Your task to perform on an android device: Open Chrome and go to settings Image 0: 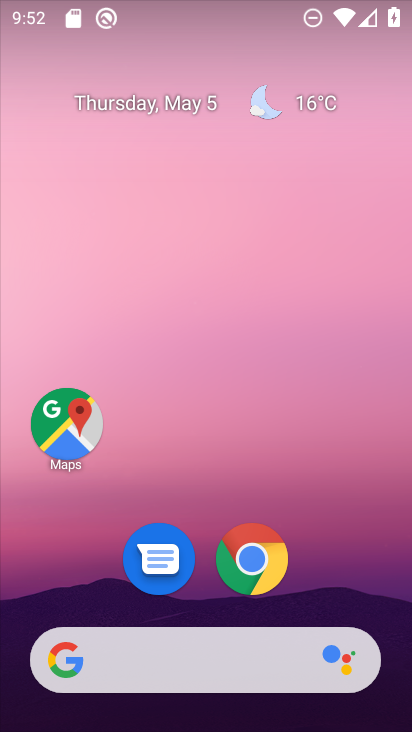
Step 0: click (254, 565)
Your task to perform on an android device: Open Chrome and go to settings Image 1: 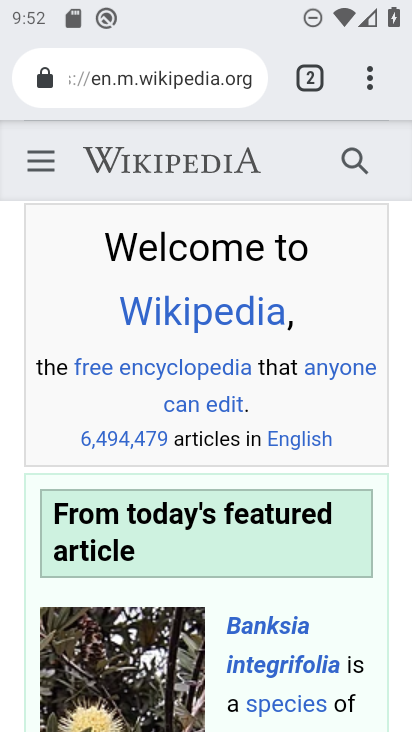
Step 1: task complete